Your task to perform on an android device: Open my contact list Image 0: 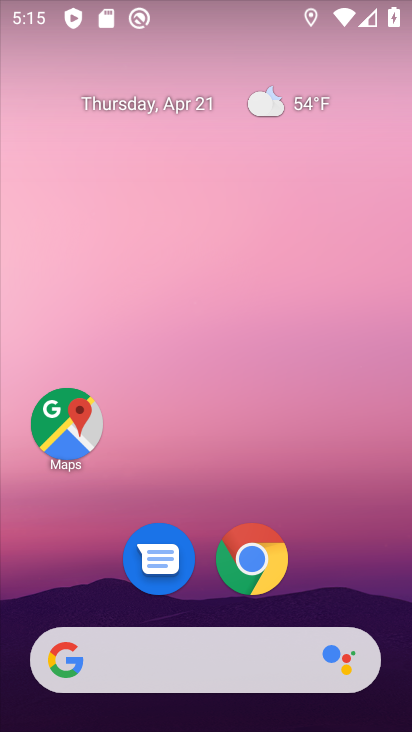
Step 0: drag from (362, 526) to (367, 0)
Your task to perform on an android device: Open my contact list Image 1: 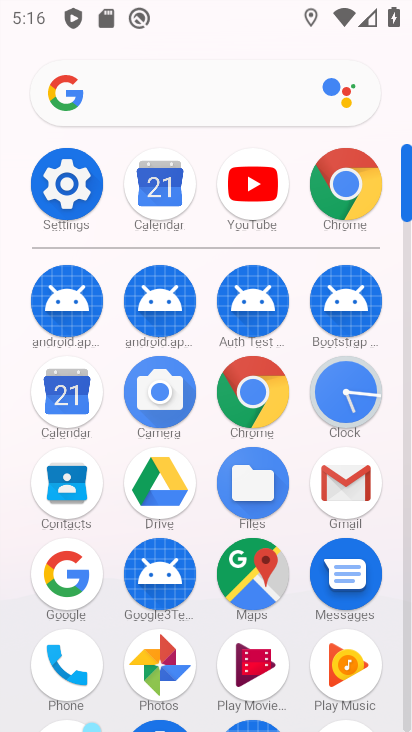
Step 1: click (67, 483)
Your task to perform on an android device: Open my contact list Image 2: 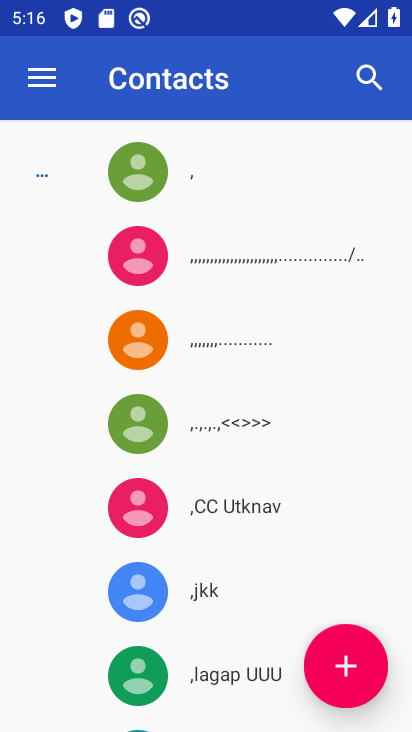
Step 2: task complete